Your task to perform on an android device: When is my next meeting? Image 0: 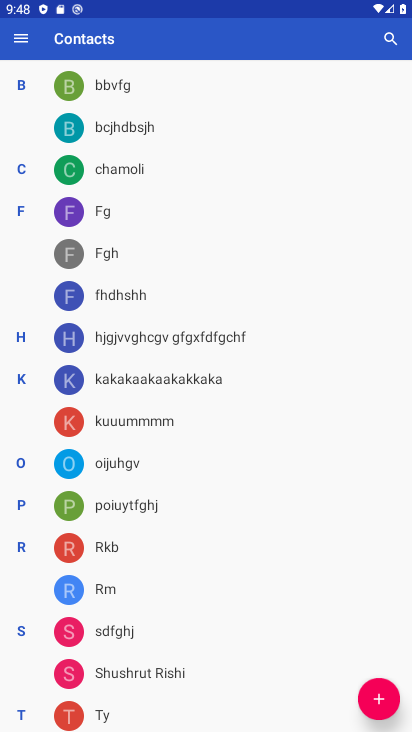
Step 0: press home button
Your task to perform on an android device: When is my next meeting? Image 1: 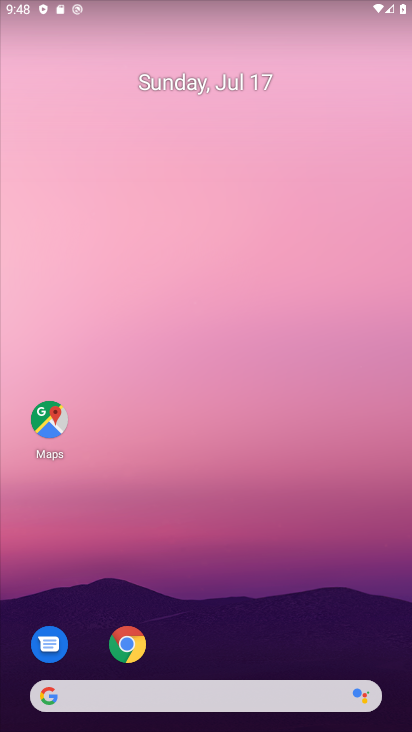
Step 1: drag from (227, 652) to (296, 104)
Your task to perform on an android device: When is my next meeting? Image 2: 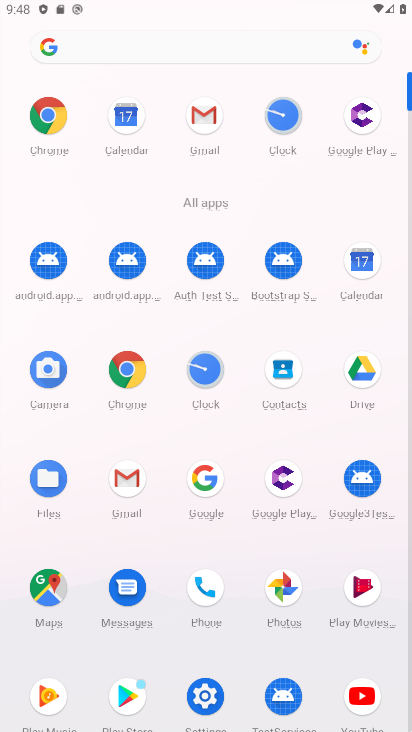
Step 2: click (359, 275)
Your task to perform on an android device: When is my next meeting? Image 3: 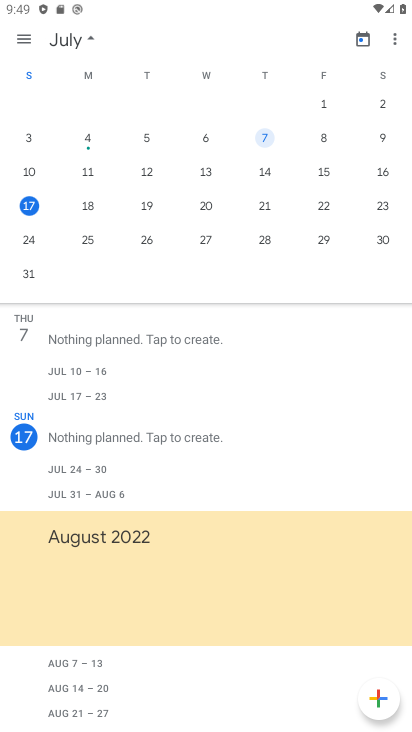
Step 3: task complete